Your task to perform on an android device: toggle sleep mode Image 0: 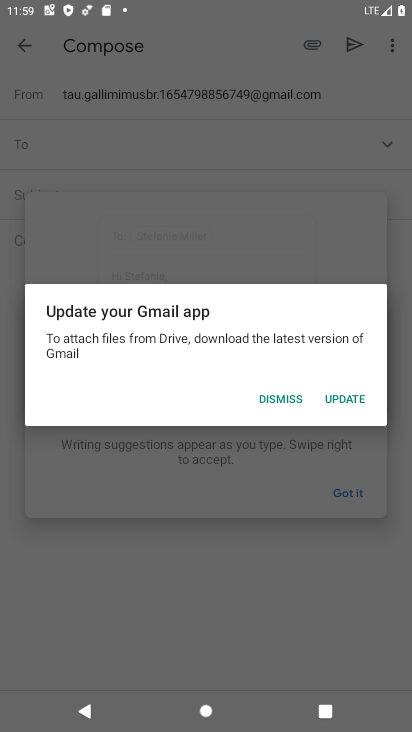
Step 0: press home button
Your task to perform on an android device: toggle sleep mode Image 1: 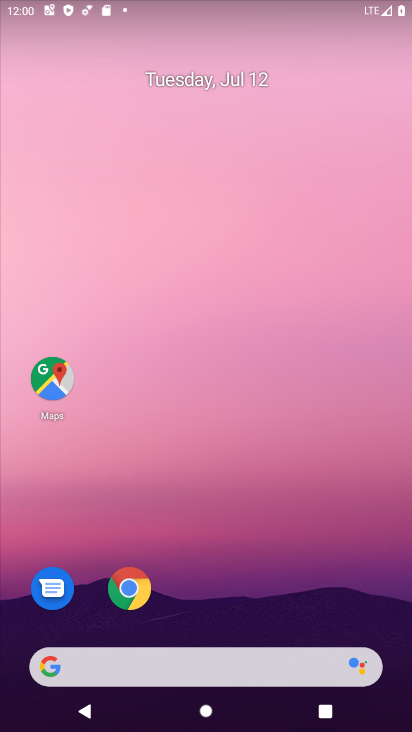
Step 1: drag from (336, 549) to (252, 58)
Your task to perform on an android device: toggle sleep mode Image 2: 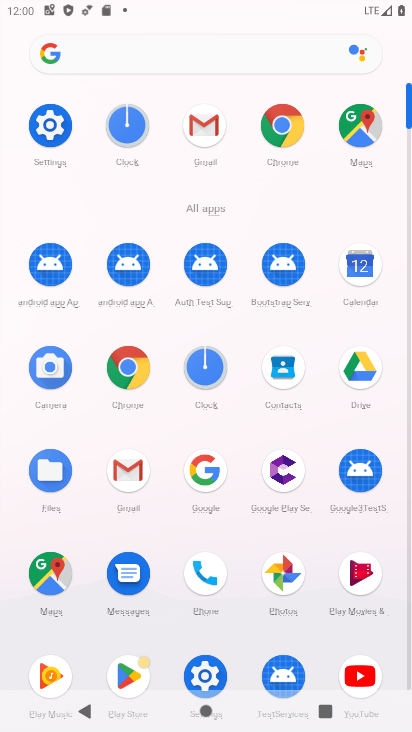
Step 2: click (47, 118)
Your task to perform on an android device: toggle sleep mode Image 3: 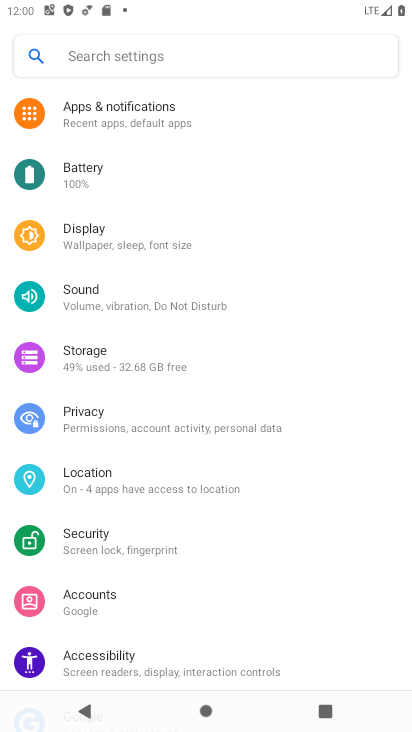
Step 3: click (130, 245)
Your task to perform on an android device: toggle sleep mode Image 4: 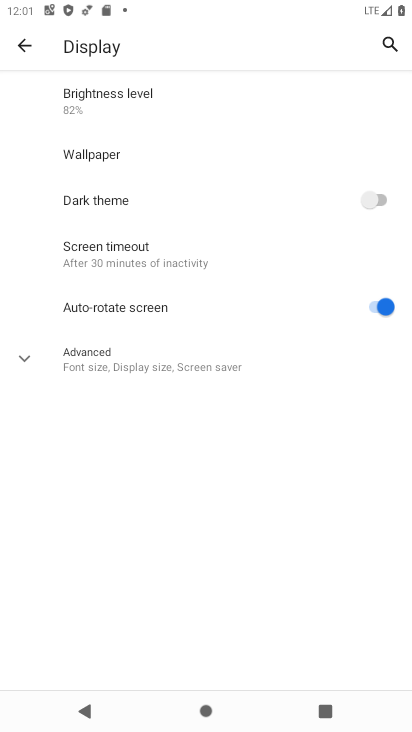
Step 4: click (180, 257)
Your task to perform on an android device: toggle sleep mode Image 5: 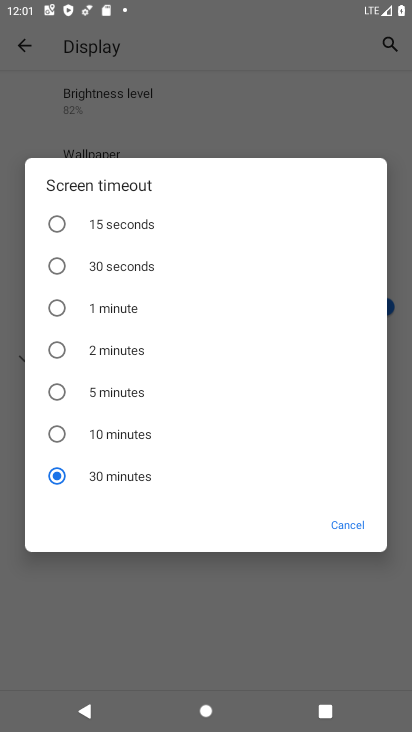
Step 5: click (145, 438)
Your task to perform on an android device: toggle sleep mode Image 6: 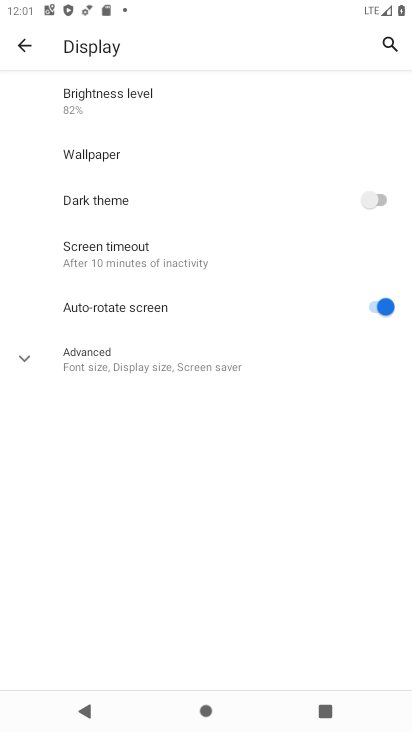
Step 6: task complete